Your task to perform on an android device: What's on my calendar tomorrow? Image 0: 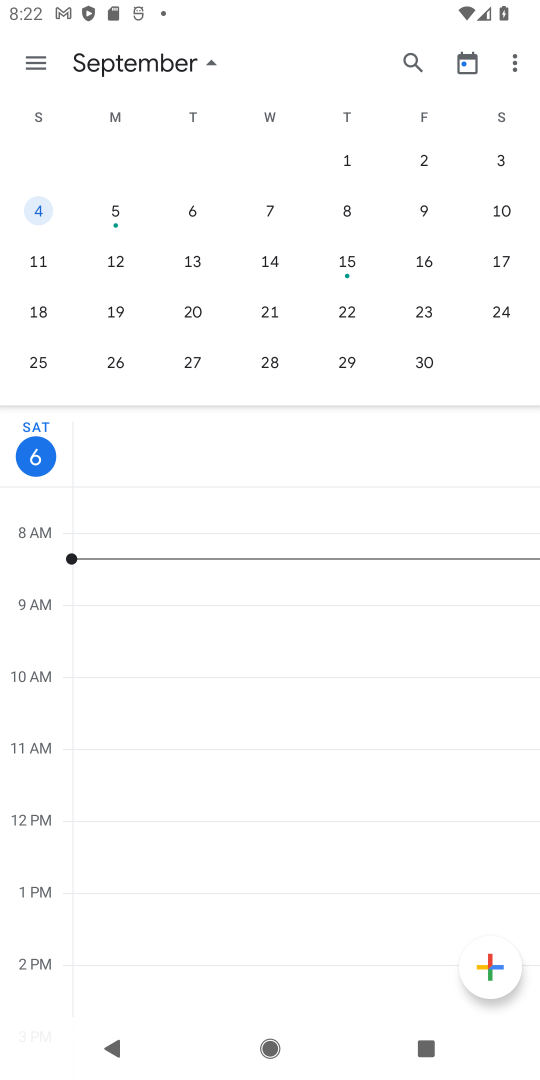
Step 0: press home button
Your task to perform on an android device: What's on my calendar tomorrow? Image 1: 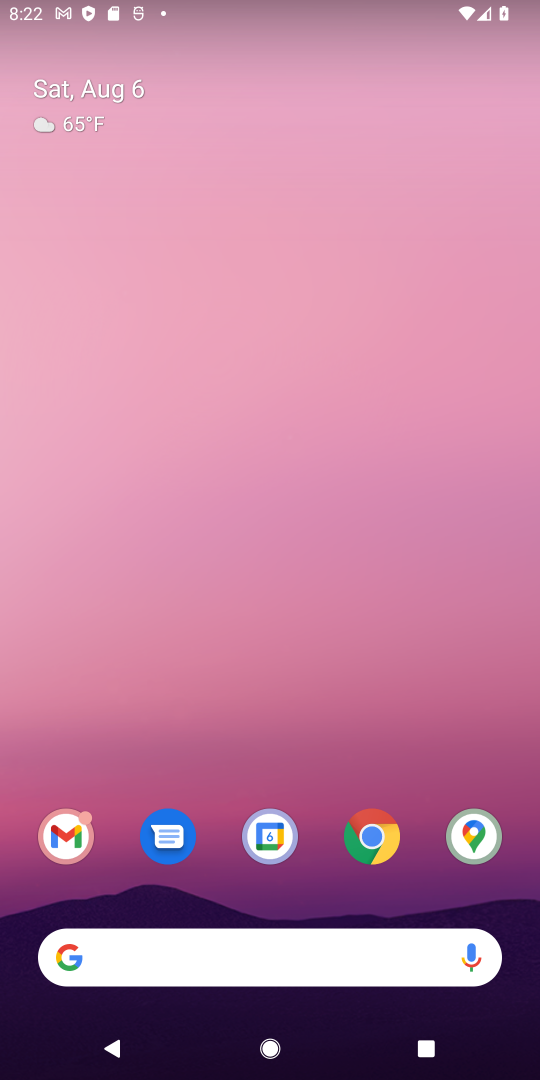
Step 1: drag from (506, 949) to (302, 58)
Your task to perform on an android device: What's on my calendar tomorrow? Image 2: 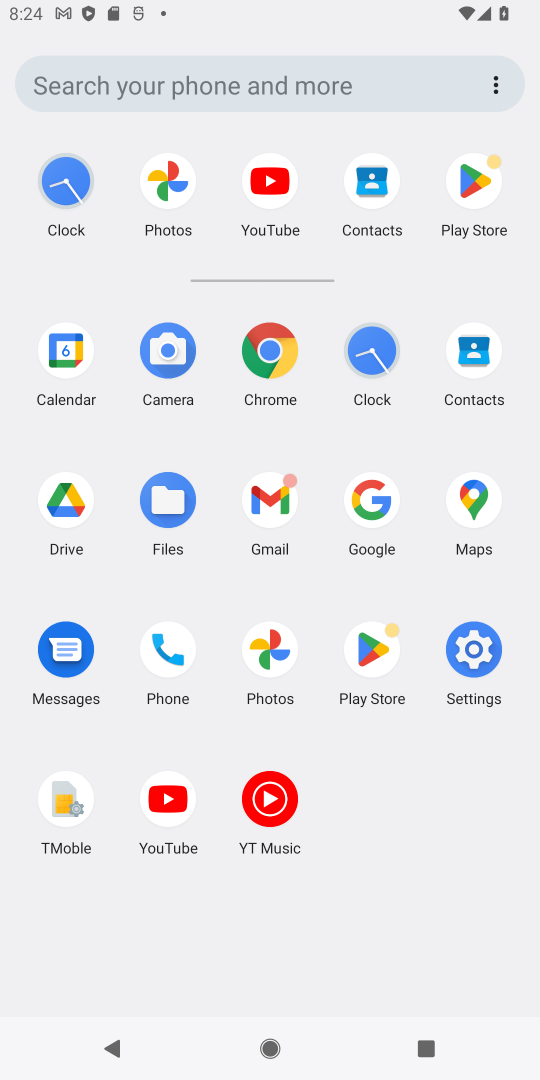
Step 2: click (77, 355)
Your task to perform on an android device: What's on my calendar tomorrow? Image 3: 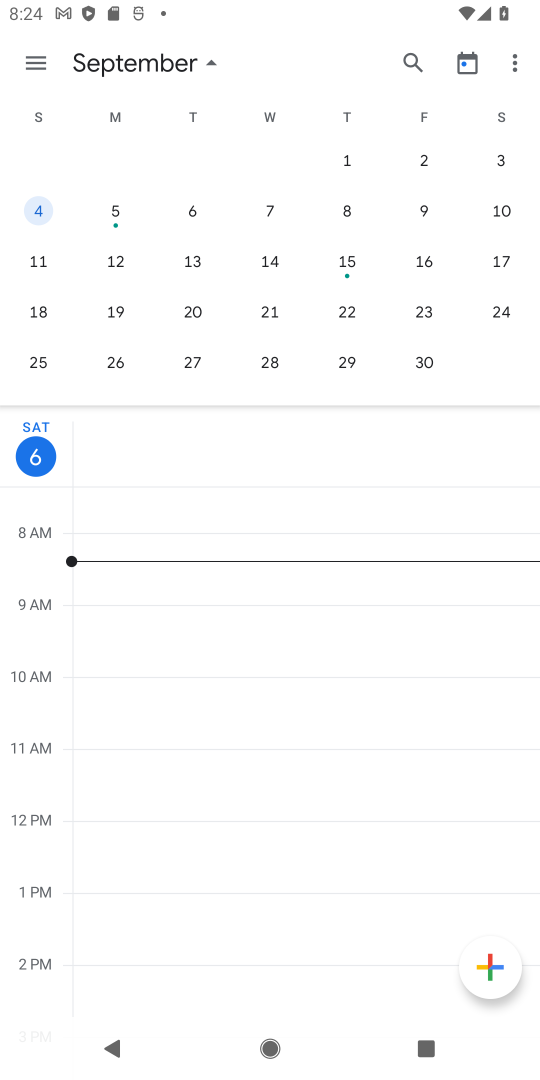
Step 3: task complete